Your task to perform on an android device: set an alarm Image 0: 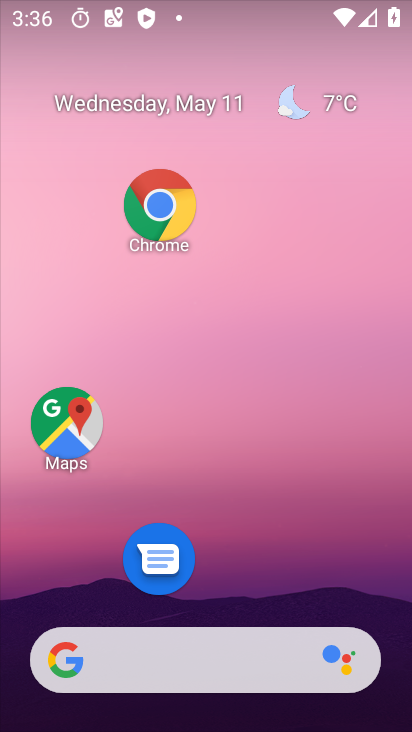
Step 0: drag from (204, 629) to (291, 131)
Your task to perform on an android device: set an alarm Image 1: 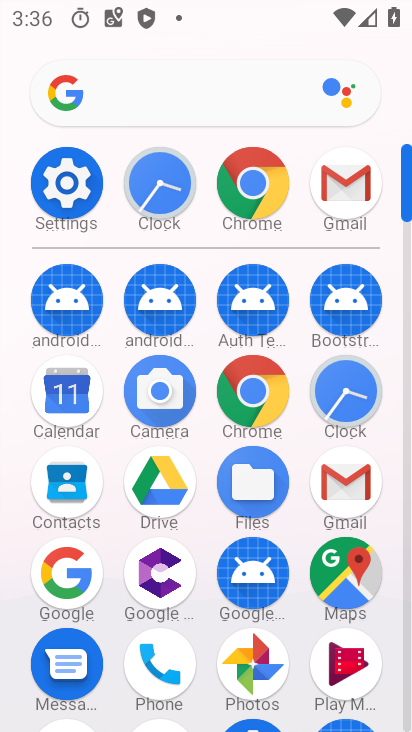
Step 1: click (163, 187)
Your task to perform on an android device: set an alarm Image 2: 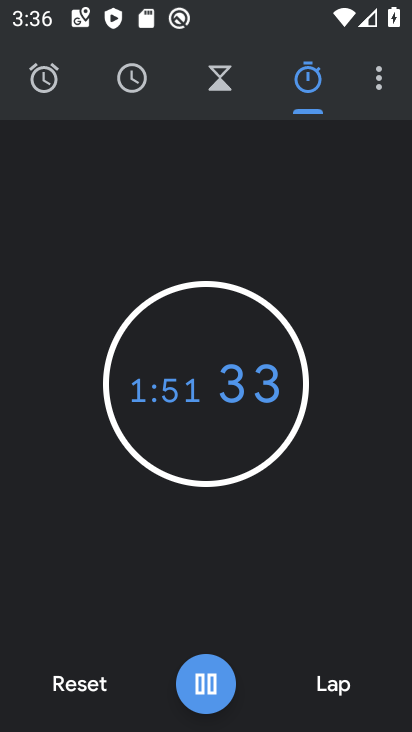
Step 2: click (204, 684)
Your task to perform on an android device: set an alarm Image 3: 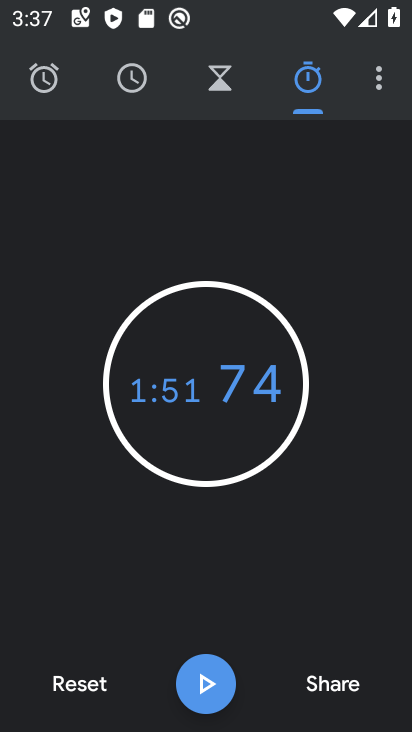
Step 3: click (74, 683)
Your task to perform on an android device: set an alarm Image 4: 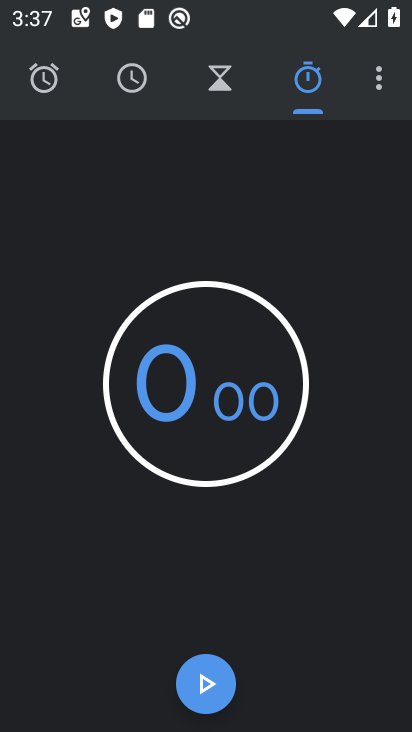
Step 4: click (60, 77)
Your task to perform on an android device: set an alarm Image 5: 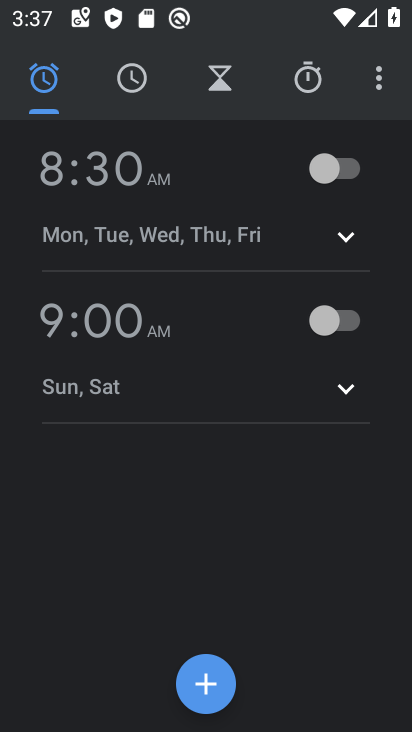
Step 5: click (208, 682)
Your task to perform on an android device: set an alarm Image 6: 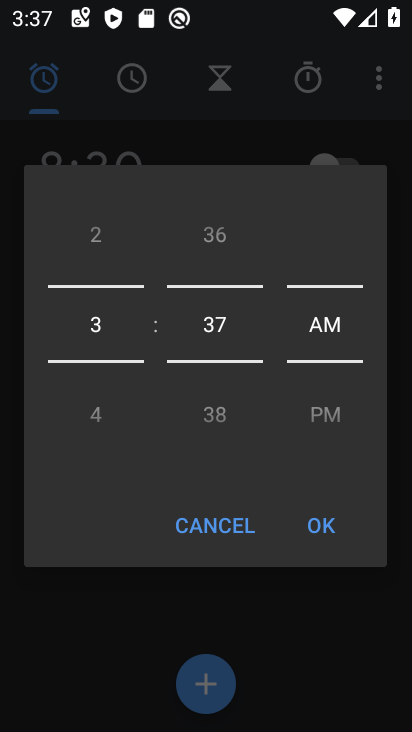
Step 6: click (95, 417)
Your task to perform on an android device: set an alarm Image 7: 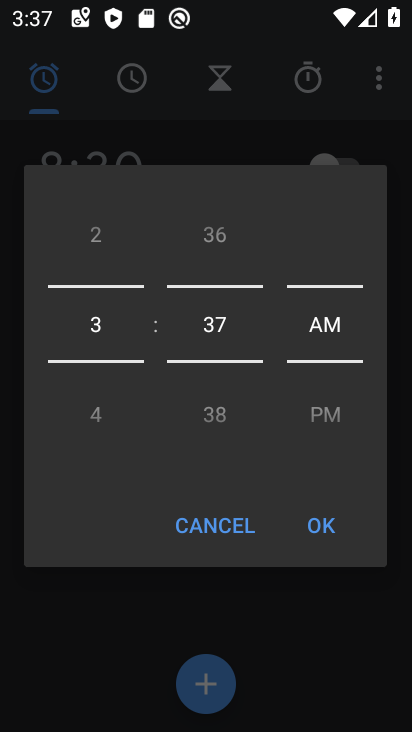
Step 7: click (137, 497)
Your task to perform on an android device: set an alarm Image 8: 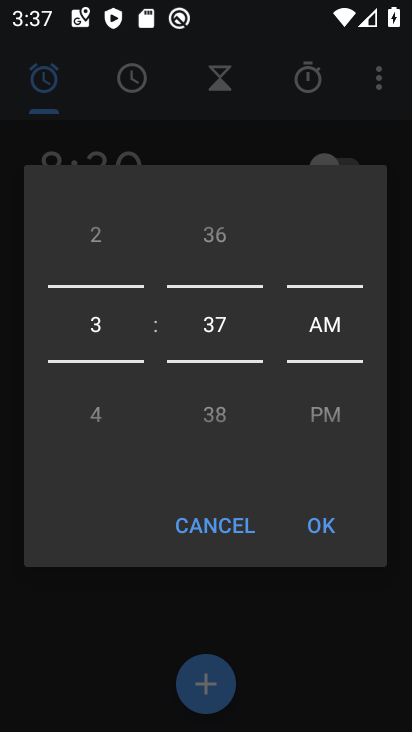
Step 8: click (106, 223)
Your task to perform on an android device: set an alarm Image 9: 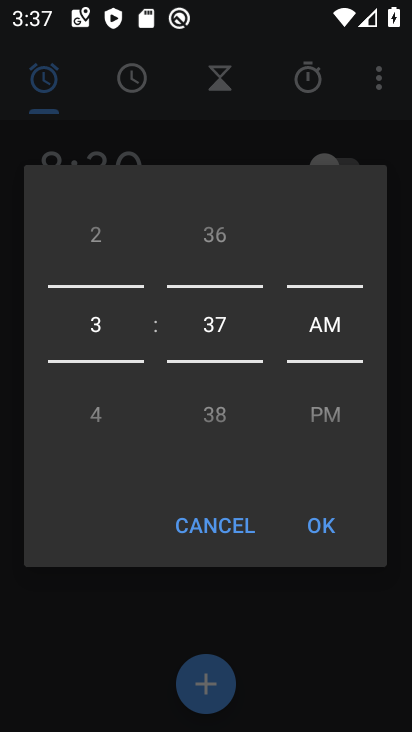
Step 9: drag from (101, 302) to (130, 487)
Your task to perform on an android device: set an alarm Image 10: 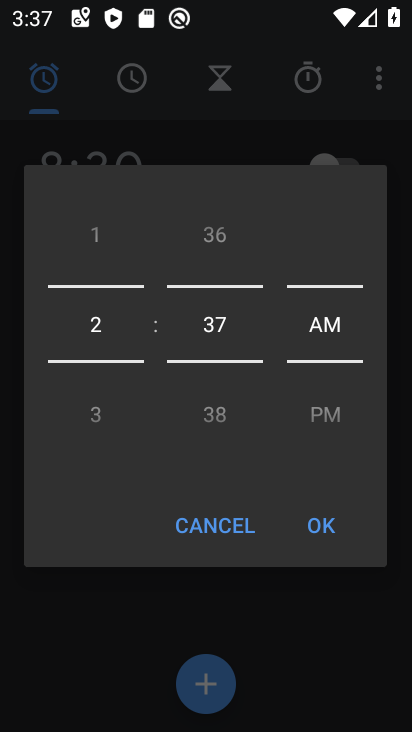
Step 10: drag from (233, 300) to (284, 471)
Your task to perform on an android device: set an alarm Image 11: 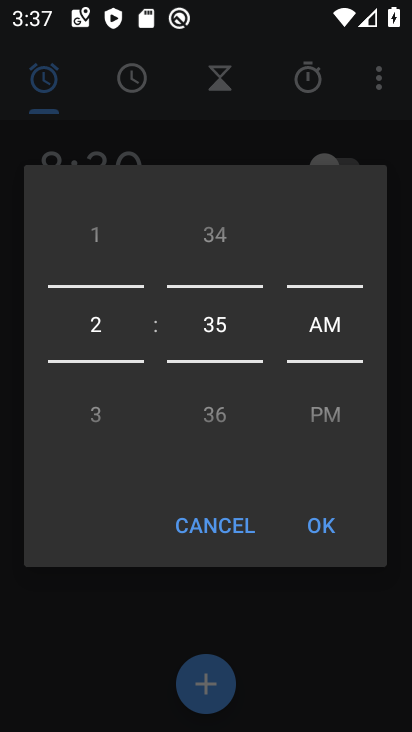
Step 11: click (320, 526)
Your task to perform on an android device: set an alarm Image 12: 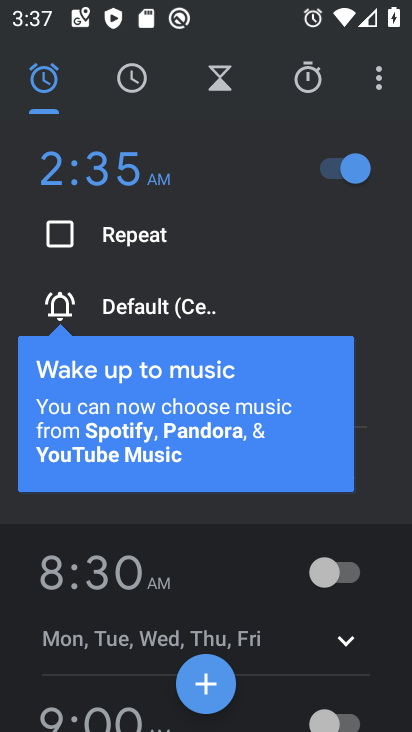
Step 12: task complete